Your task to perform on an android device: Find coffee shops on Maps Image 0: 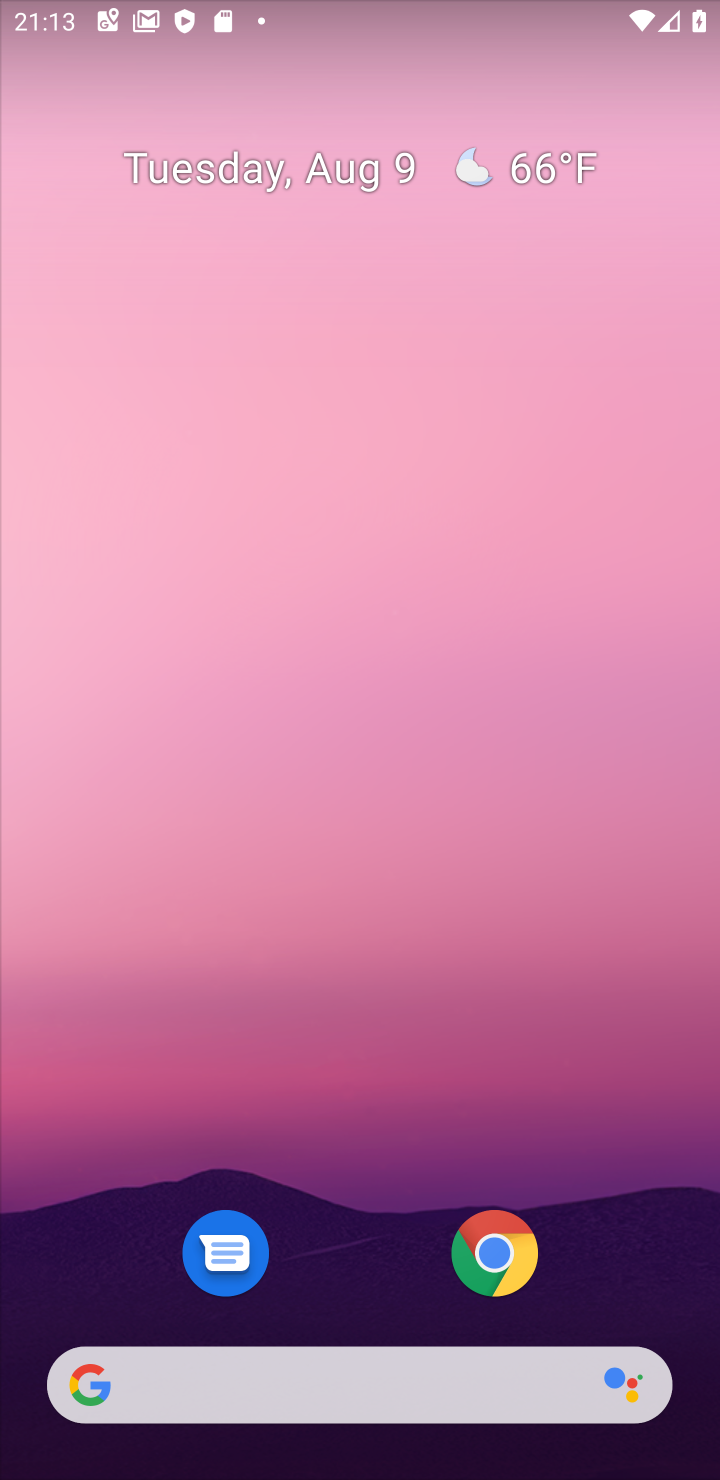
Step 0: drag from (324, 1155) to (236, 0)
Your task to perform on an android device: Find coffee shops on Maps Image 1: 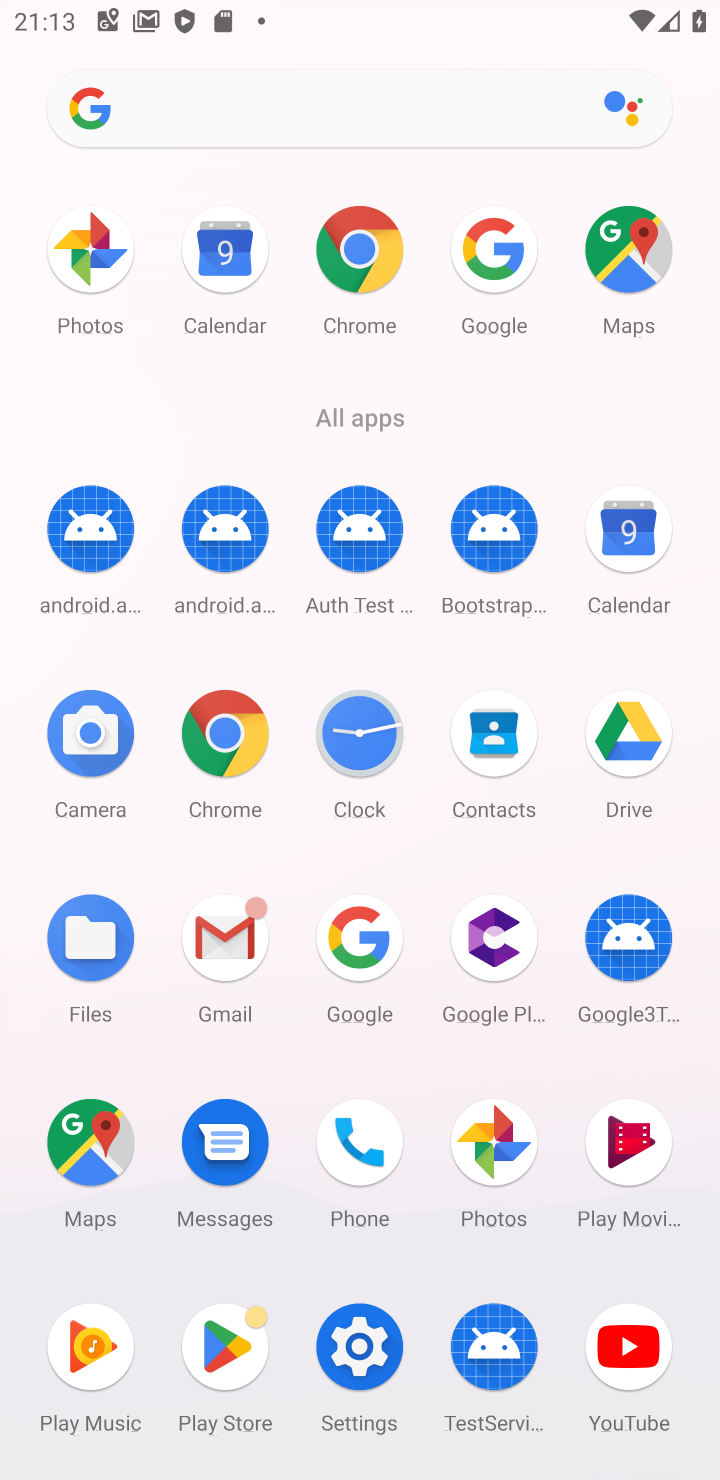
Step 1: click (71, 1142)
Your task to perform on an android device: Find coffee shops on Maps Image 2: 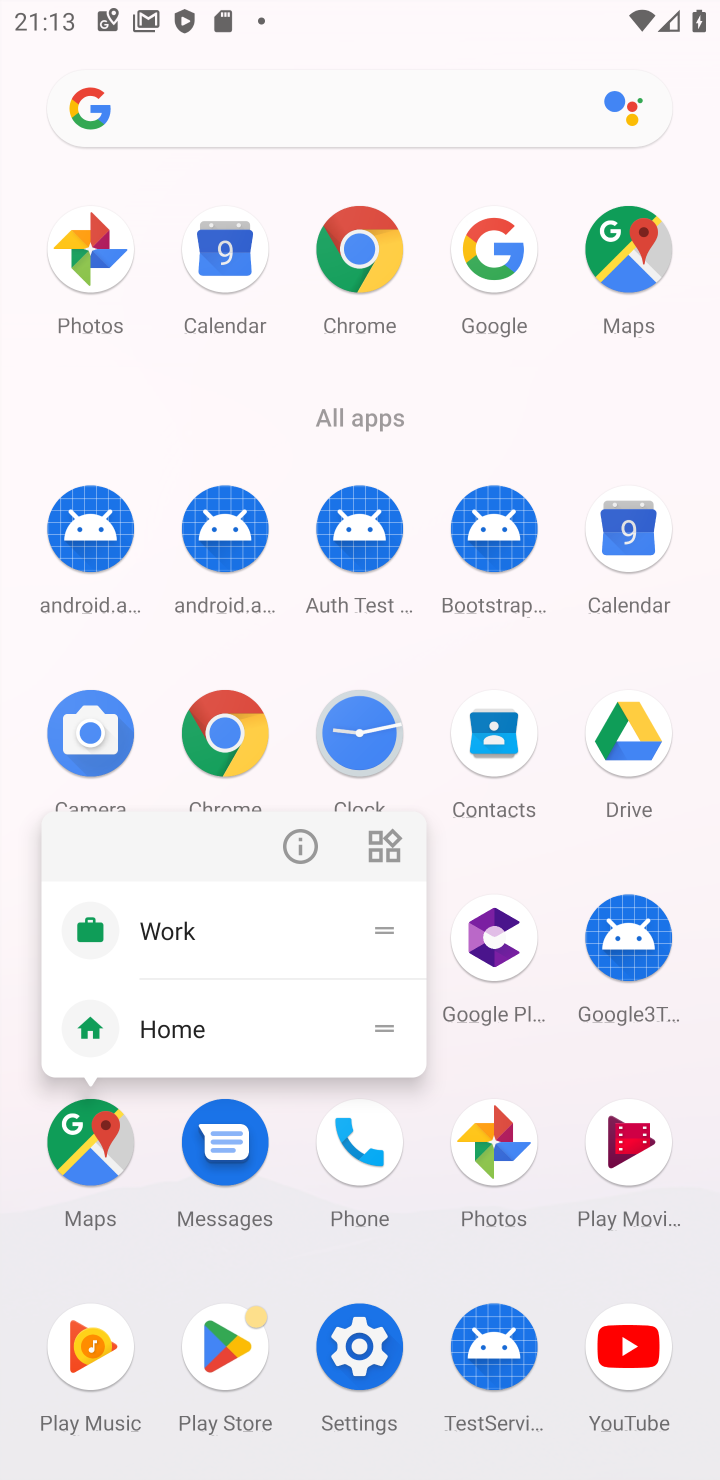
Step 2: click (73, 1142)
Your task to perform on an android device: Find coffee shops on Maps Image 3: 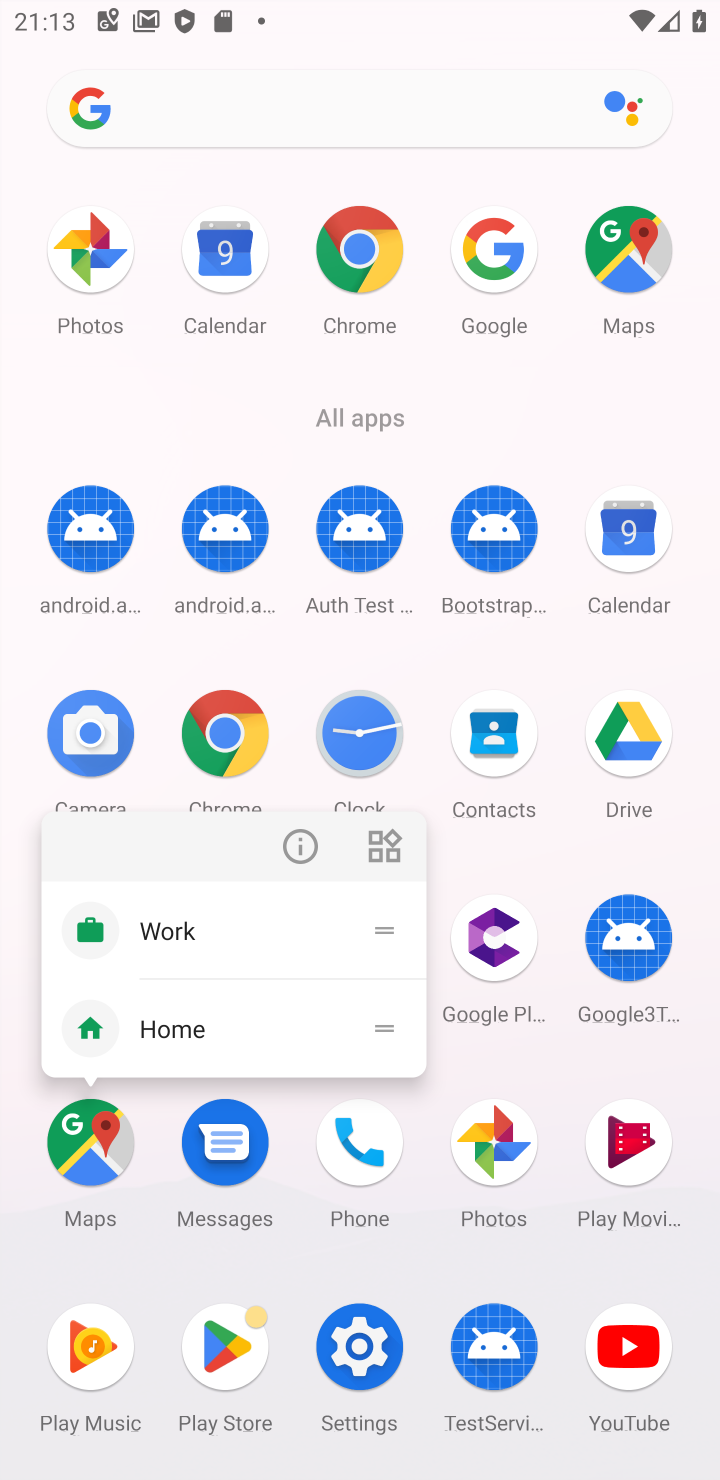
Step 3: click (106, 1137)
Your task to perform on an android device: Find coffee shops on Maps Image 4: 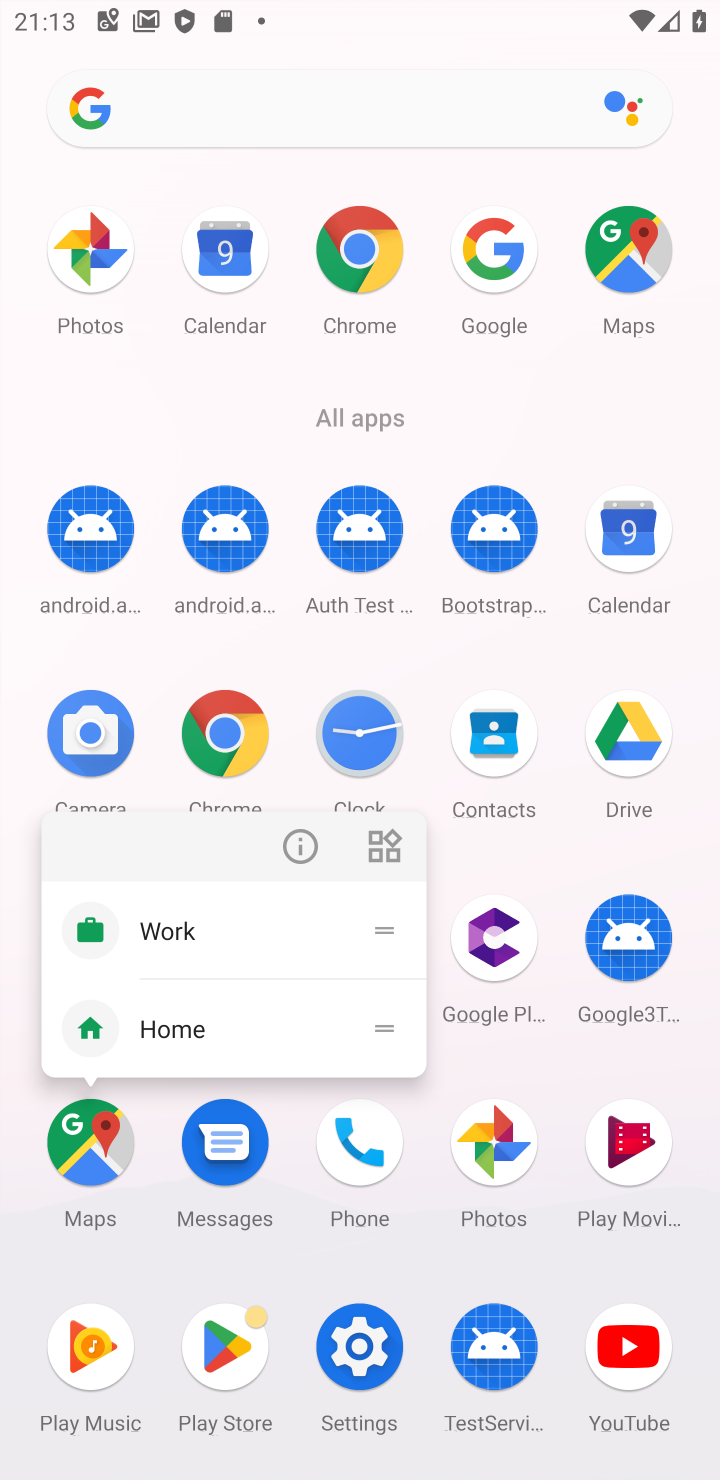
Step 4: click (106, 1137)
Your task to perform on an android device: Find coffee shops on Maps Image 5: 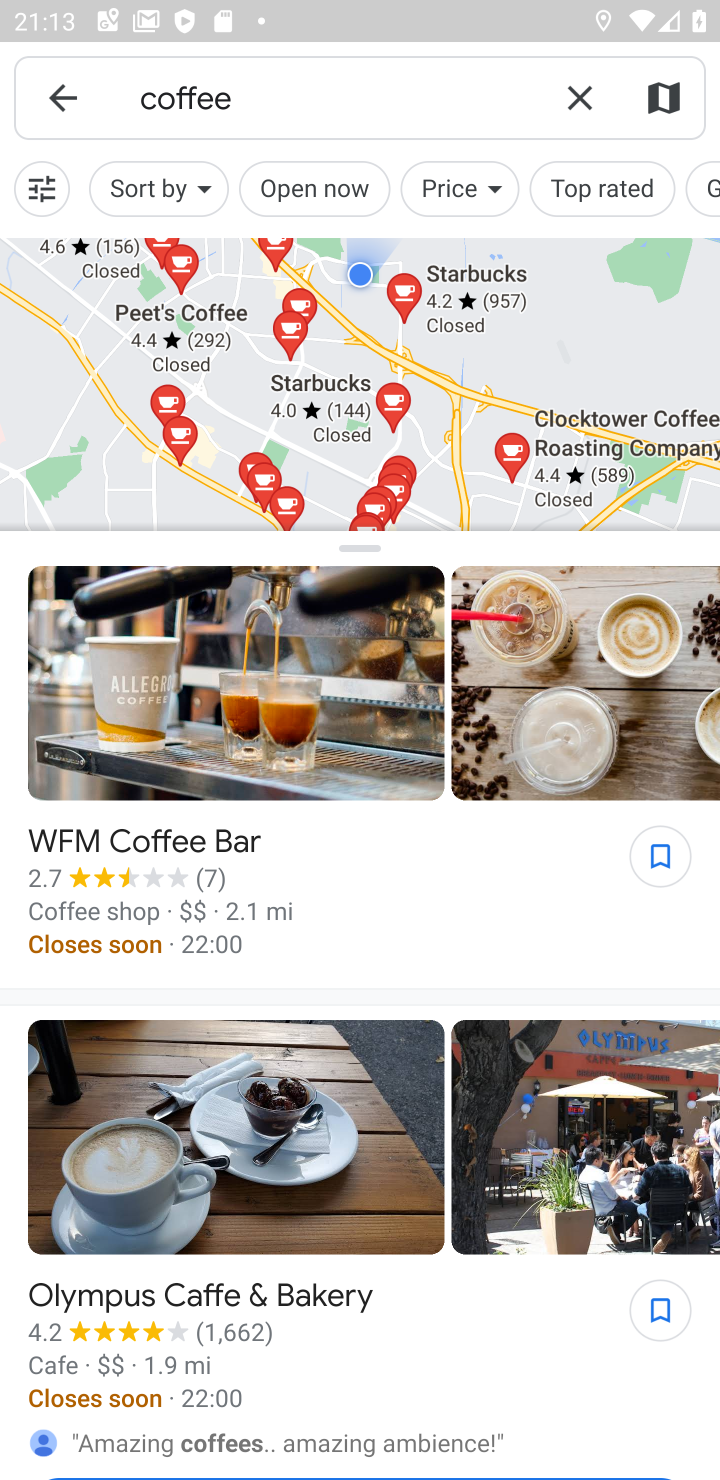
Step 5: click (358, 91)
Your task to perform on an android device: Find coffee shops on Maps Image 6: 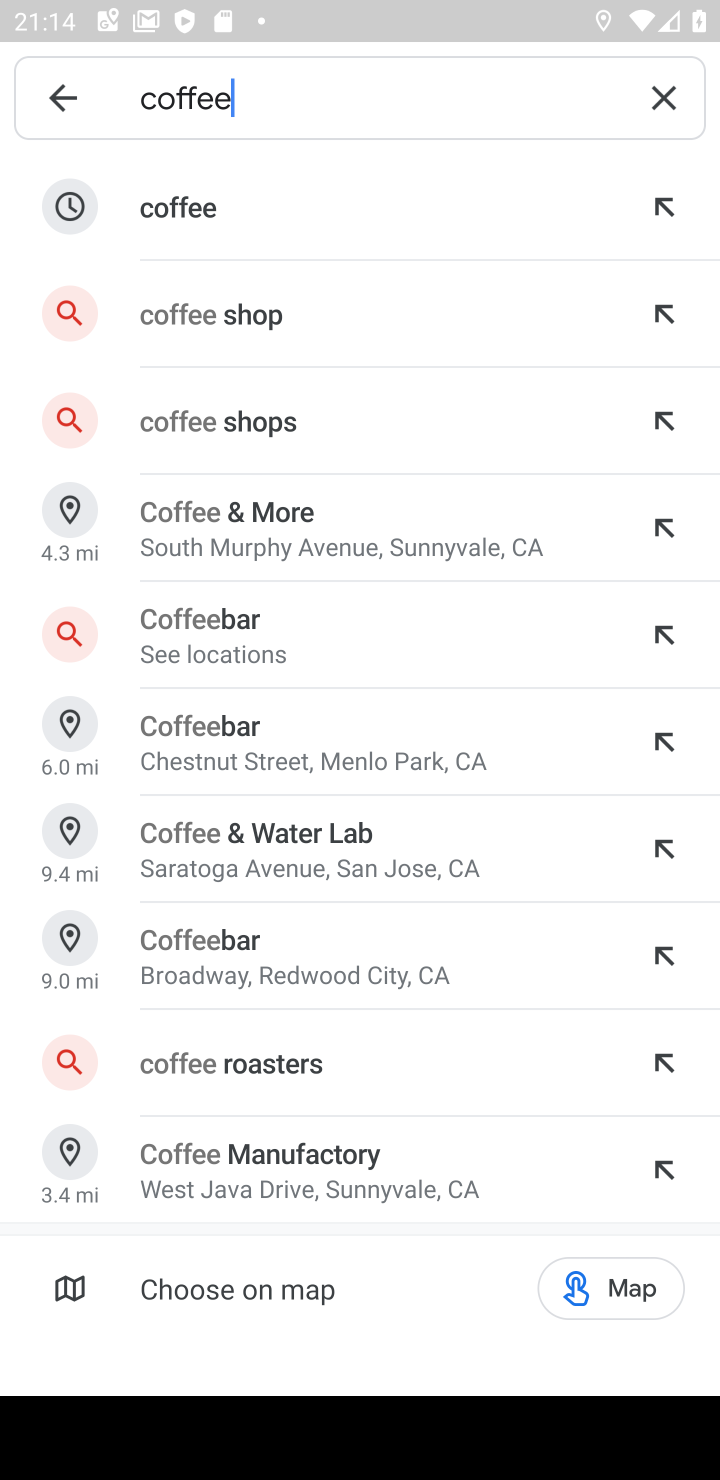
Step 6: type " shops"
Your task to perform on an android device: Find coffee shops on Maps Image 7: 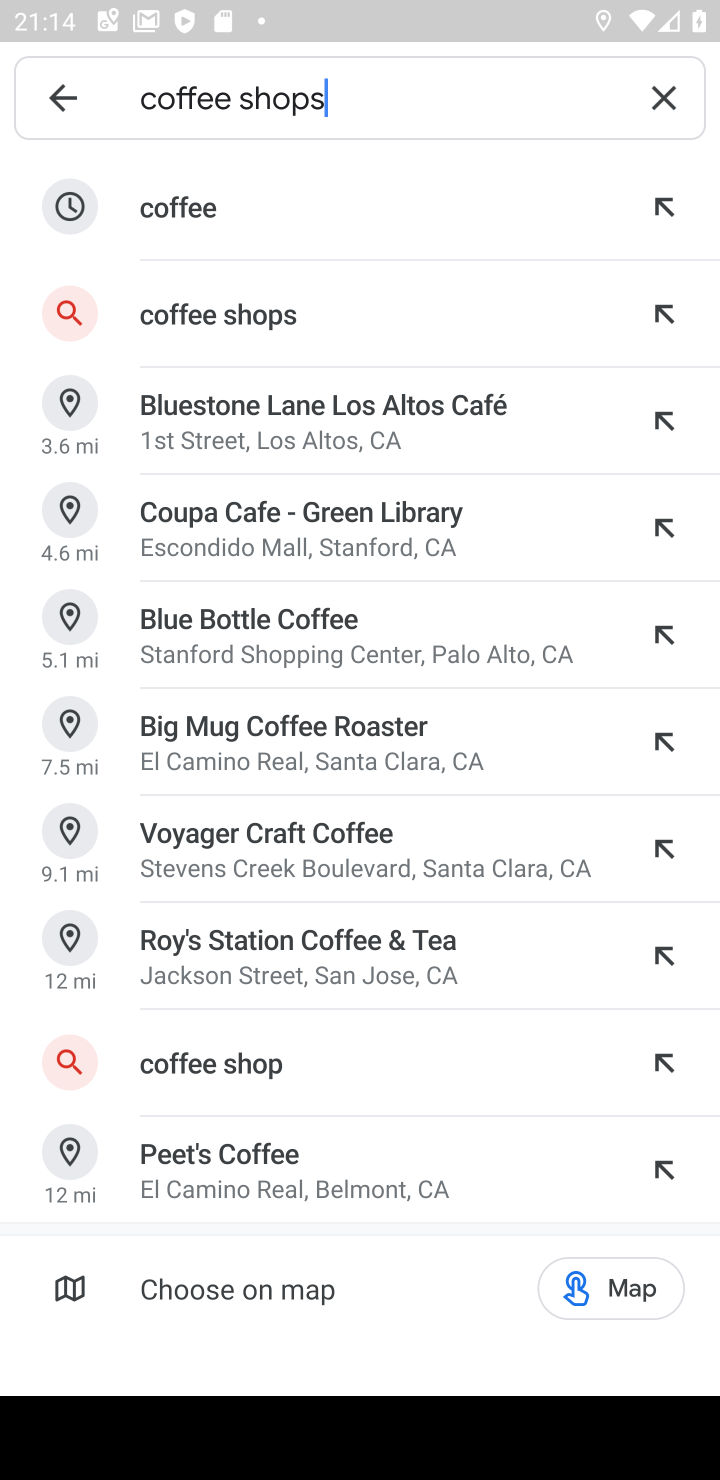
Step 7: press enter
Your task to perform on an android device: Find coffee shops on Maps Image 8: 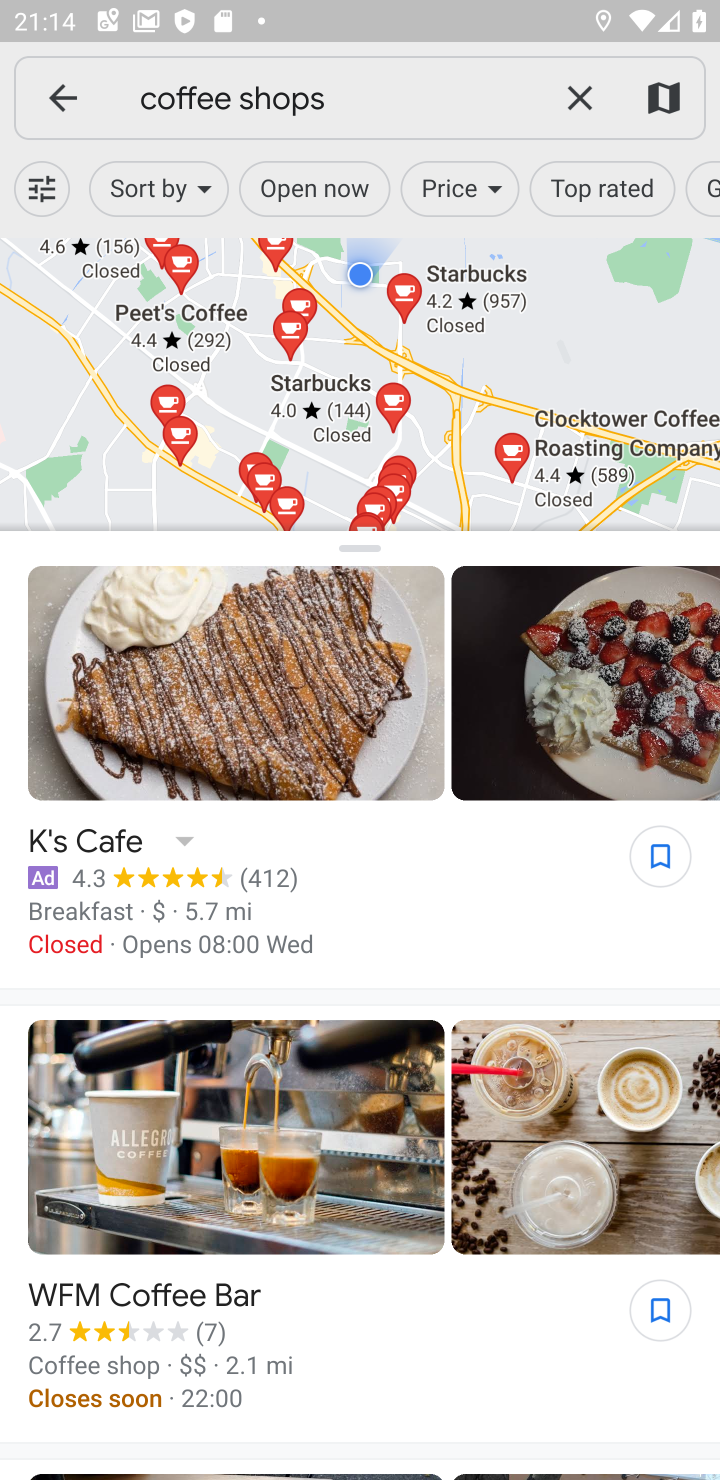
Step 8: task complete